Your task to perform on an android device: turn on the 24-hour format for clock Image 0: 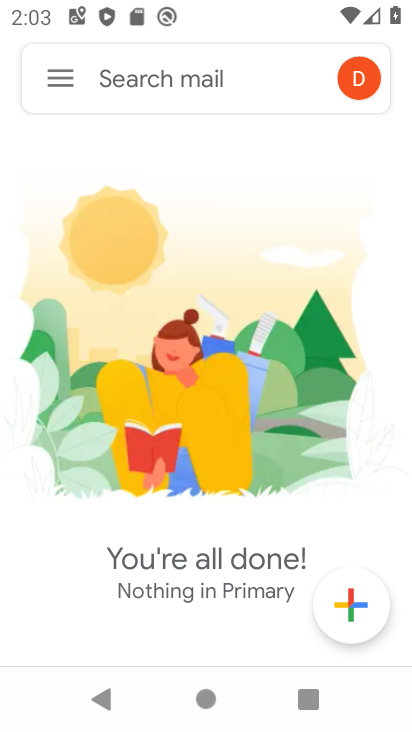
Step 0: press home button
Your task to perform on an android device: turn on the 24-hour format for clock Image 1: 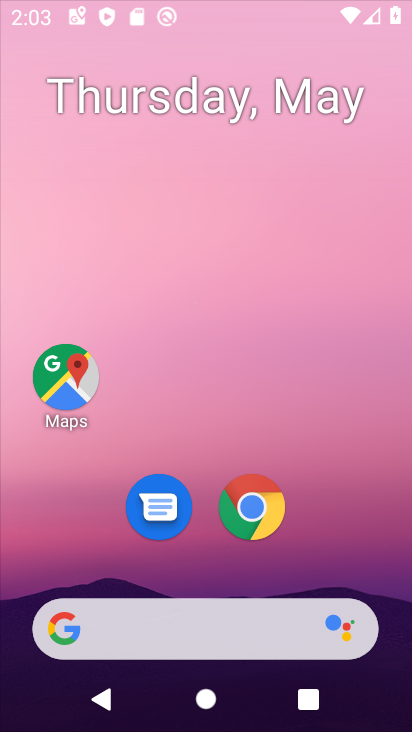
Step 1: drag from (335, 676) to (405, 152)
Your task to perform on an android device: turn on the 24-hour format for clock Image 2: 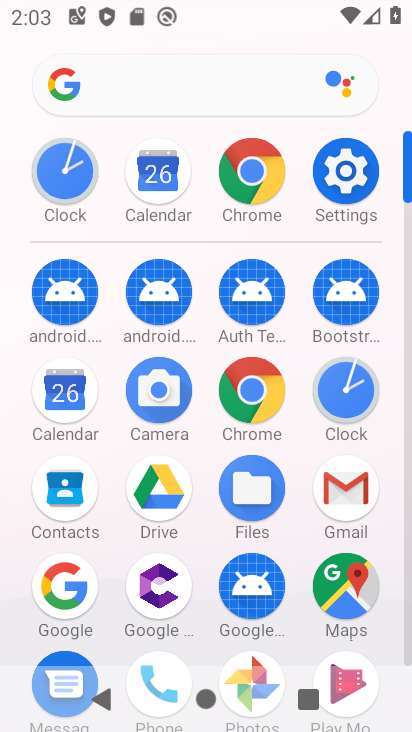
Step 2: click (329, 394)
Your task to perform on an android device: turn on the 24-hour format for clock Image 3: 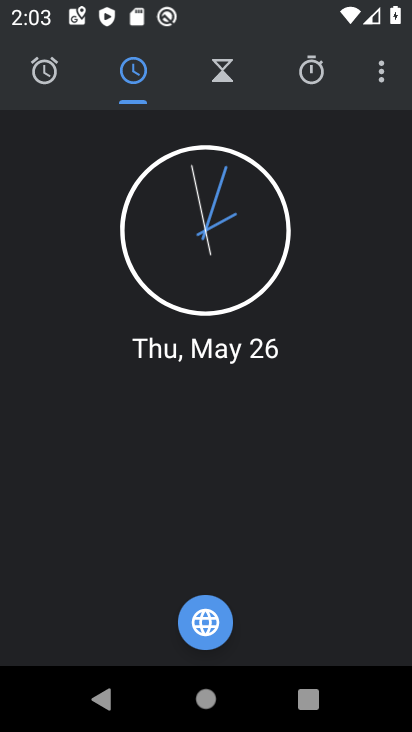
Step 3: click (390, 63)
Your task to perform on an android device: turn on the 24-hour format for clock Image 4: 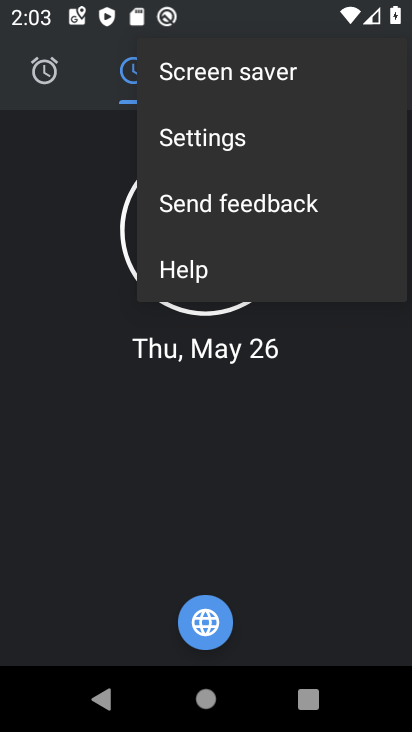
Step 4: click (232, 143)
Your task to perform on an android device: turn on the 24-hour format for clock Image 5: 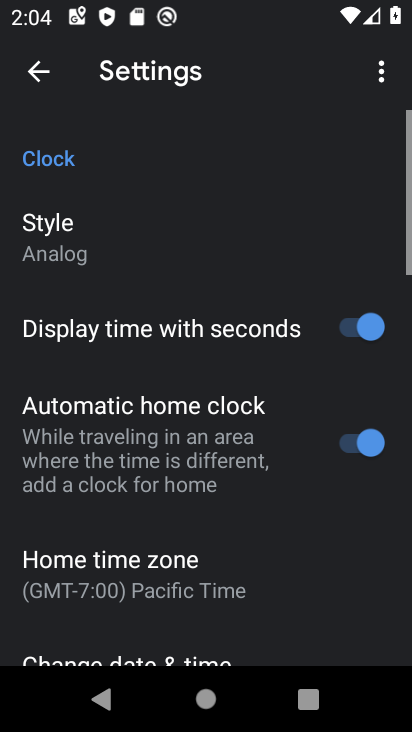
Step 5: drag from (203, 596) to (249, 152)
Your task to perform on an android device: turn on the 24-hour format for clock Image 6: 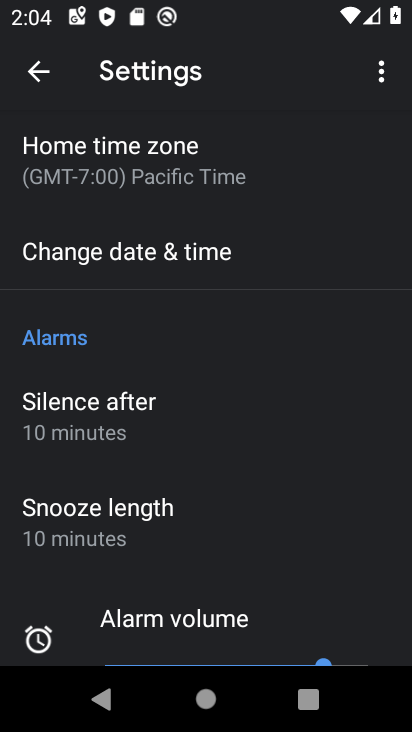
Step 6: click (202, 259)
Your task to perform on an android device: turn on the 24-hour format for clock Image 7: 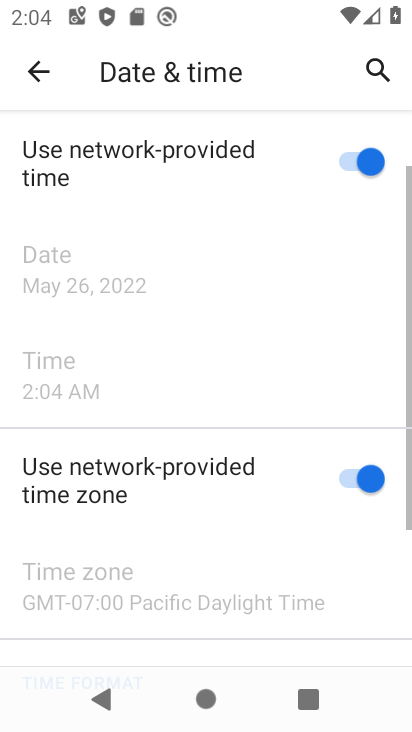
Step 7: drag from (232, 532) to (197, 40)
Your task to perform on an android device: turn on the 24-hour format for clock Image 8: 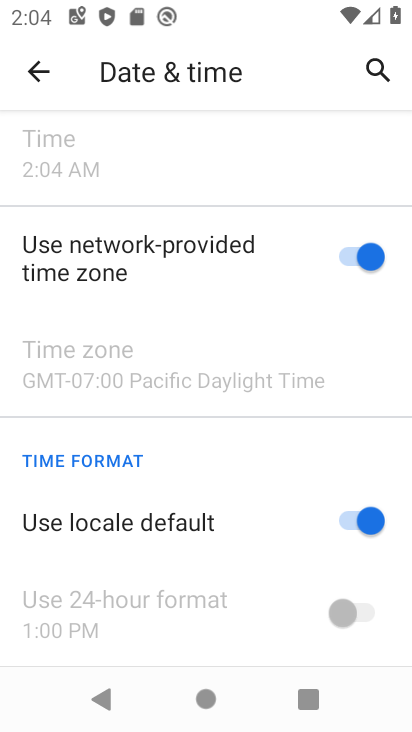
Step 8: click (346, 527)
Your task to perform on an android device: turn on the 24-hour format for clock Image 9: 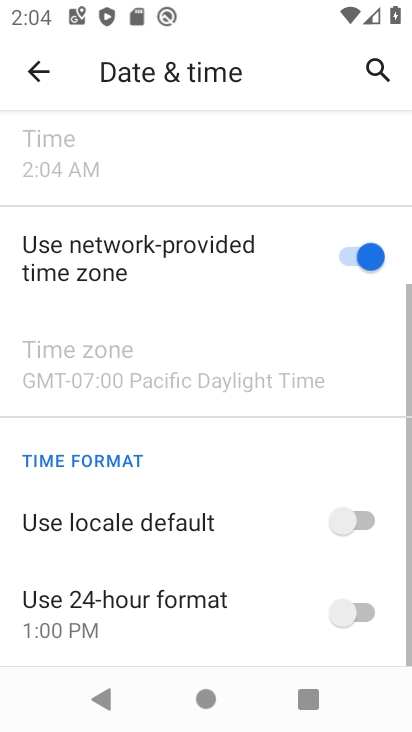
Step 9: click (363, 610)
Your task to perform on an android device: turn on the 24-hour format for clock Image 10: 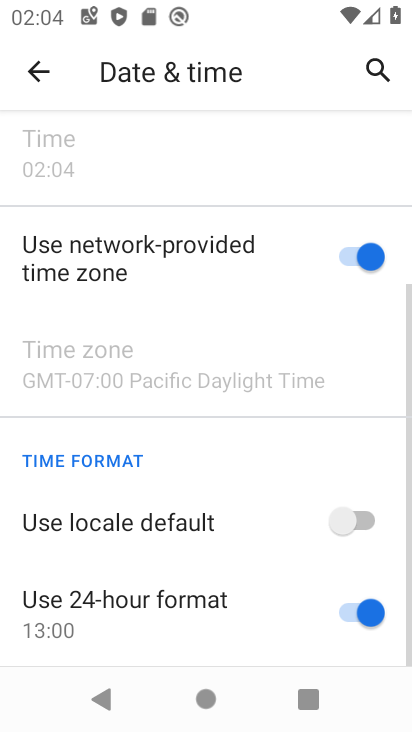
Step 10: task complete